Your task to perform on an android device: Open Chrome and go to settings Image 0: 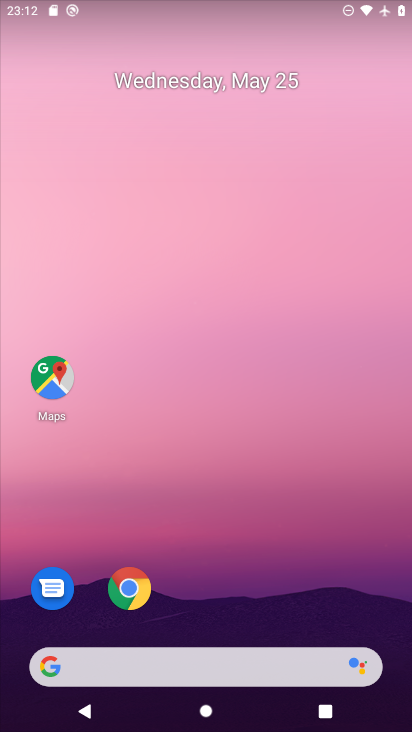
Step 0: click (132, 591)
Your task to perform on an android device: Open Chrome and go to settings Image 1: 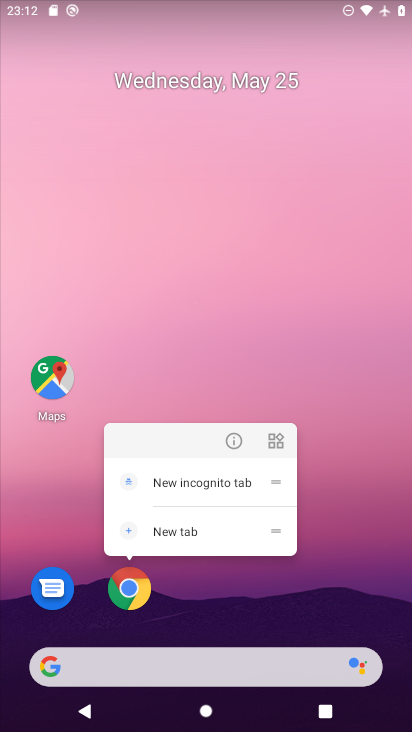
Step 1: click (287, 583)
Your task to perform on an android device: Open Chrome and go to settings Image 2: 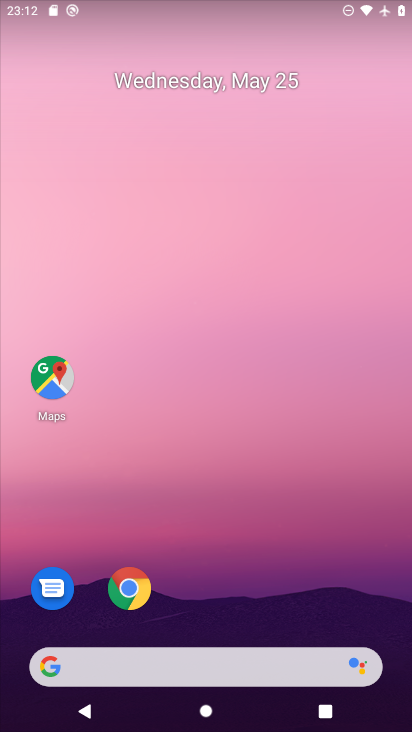
Step 2: drag from (338, 607) to (316, 120)
Your task to perform on an android device: Open Chrome and go to settings Image 3: 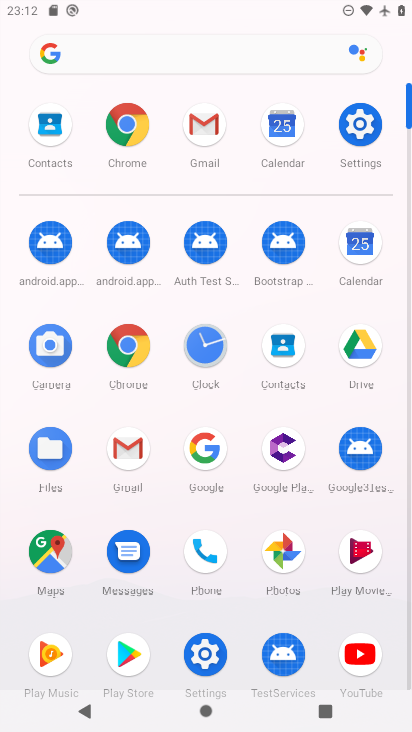
Step 3: click (131, 347)
Your task to perform on an android device: Open Chrome and go to settings Image 4: 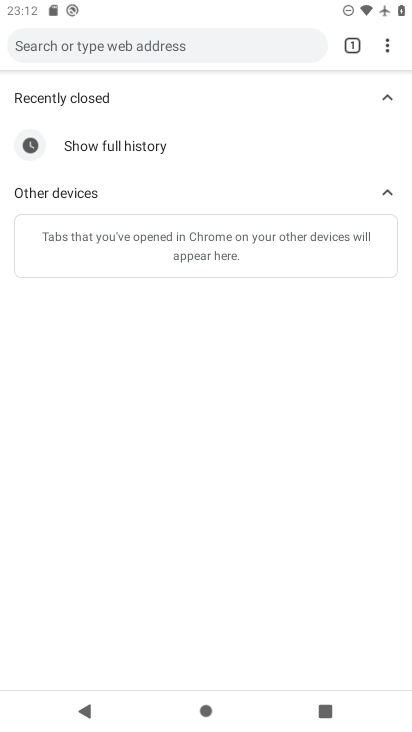
Step 4: click (383, 45)
Your task to perform on an android device: Open Chrome and go to settings Image 5: 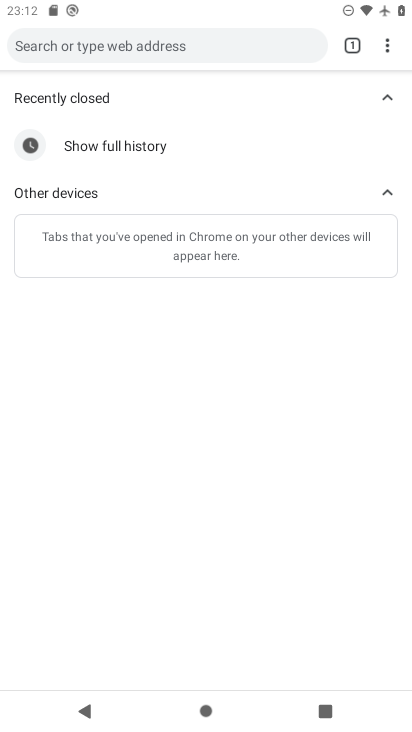
Step 5: task complete